Your task to perform on an android device: Go to battery settings Image 0: 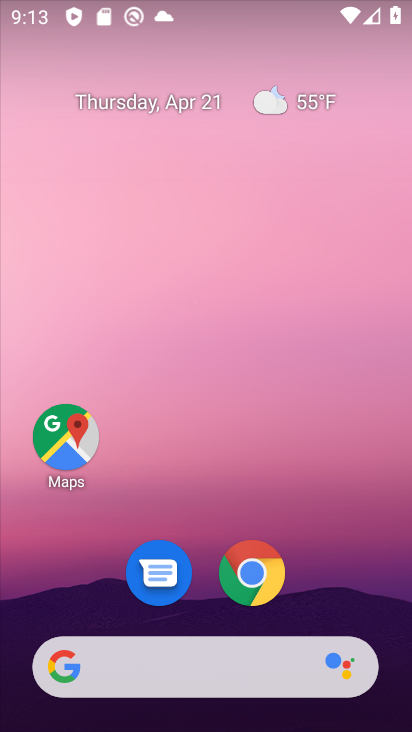
Step 0: drag from (289, 570) to (174, 169)
Your task to perform on an android device: Go to battery settings Image 1: 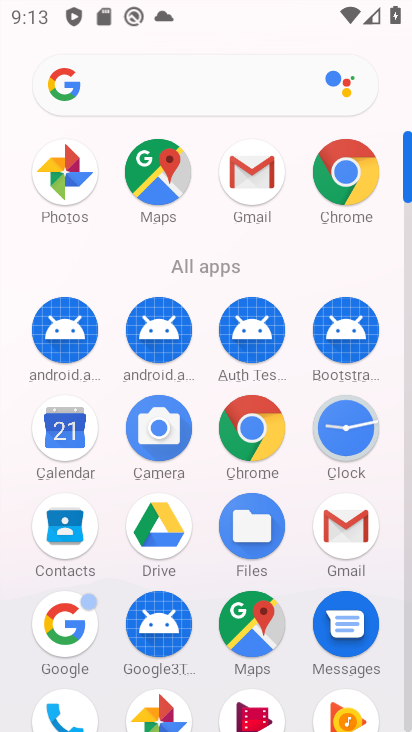
Step 1: drag from (305, 642) to (306, 333)
Your task to perform on an android device: Go to battery settings Image 2: 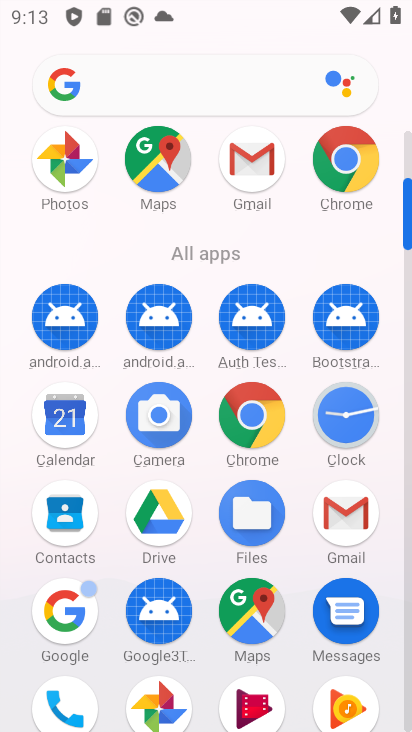
Step 2: drag from (293, 650) to (259, 230)
Your task to perform on an android device: Go to battery settings Image 3: 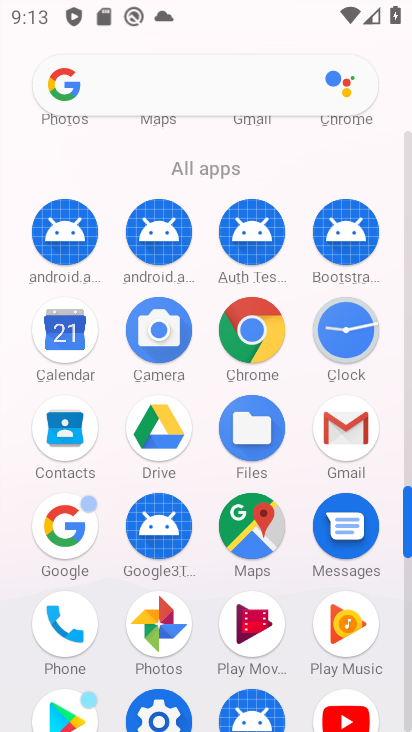
Step 3: click (172, 711)
Your task to perform on an android device: Go to battery settings Image 4: 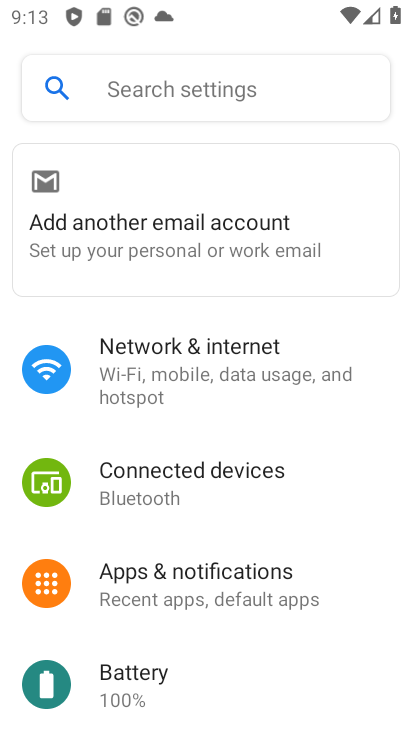
Step 4: click (139, 701)
Your task to perform on an android device: Go to battery settings Image 5: 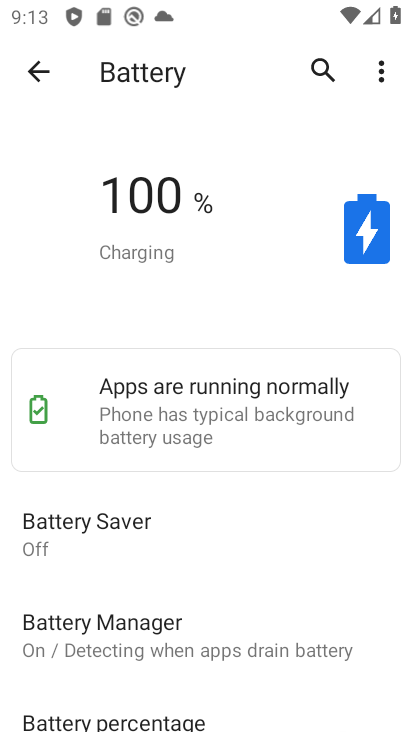
Step 5: task complete